Your task to perform on an android device: choose inbox layout in the gmail app Image 0: 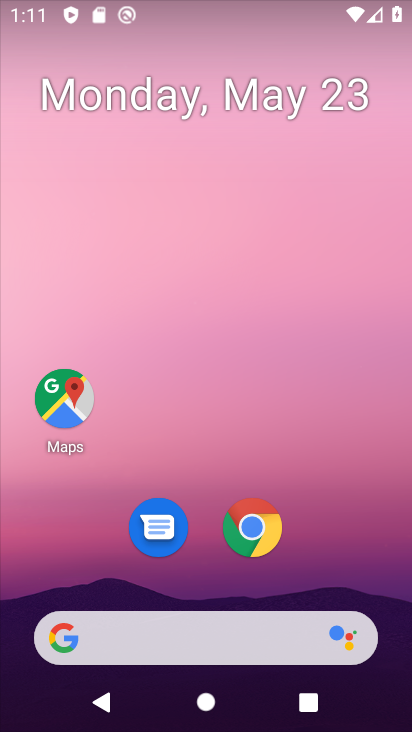
Step 0: drag from (202, 216) to (221, 79)
Your task to perform on an android device: choose inbox layout in the gmail app Image 1: 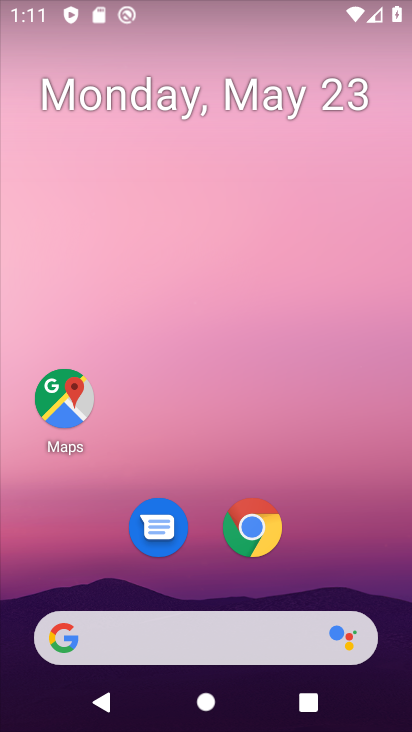
Step 1: drag from (184, 561) to (202, 178)
Your task to perform on an android device: choose inbox layout in the gmail app Image 2: 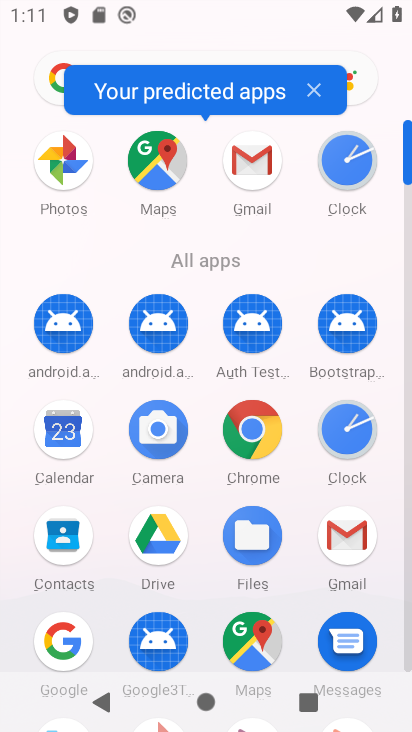
Step 2: click (235, 159)
Your task to perform on an android device: choose inbox layout in the gmail app Image 3: 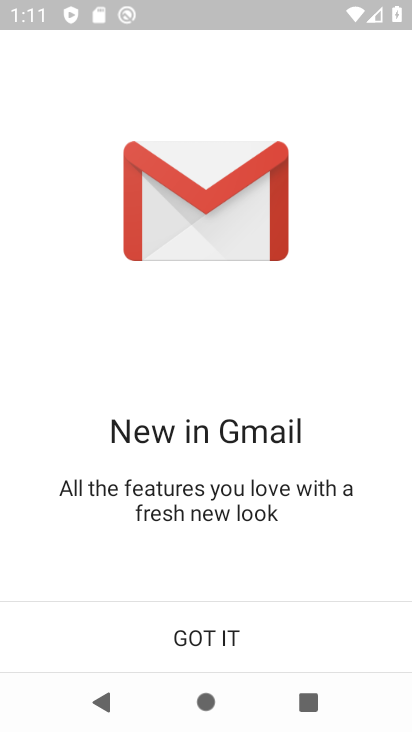
Step 3: click (183, 639)
Your task to perform on an android device: choose inbox layout in the gmail app Image 4: 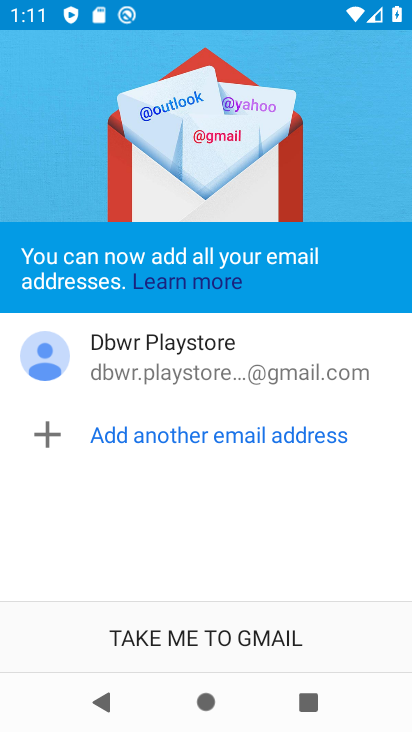
Step 4: click (199, 636)
Your task to perform on an android device: choose inbox layout in the gmail app Image 5: 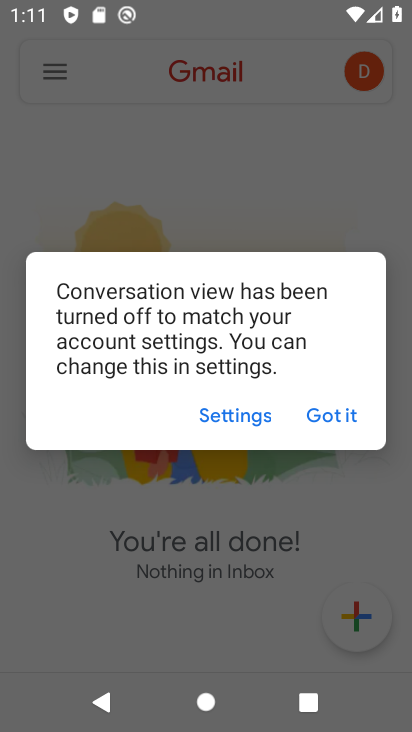
Step 5: click (313, 425)
Your task to perform on an android device: choose inbox layout in the gmail app Image 6: 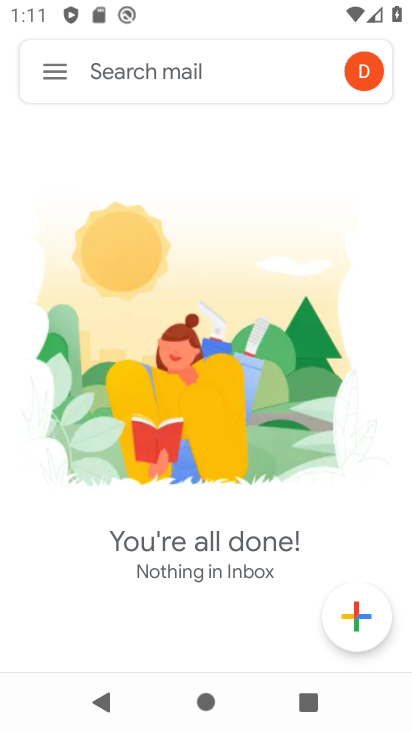
Step 6: click (60, 74)
Your task to perform on an android device: choose inbox layout in the gmail app Image 7: 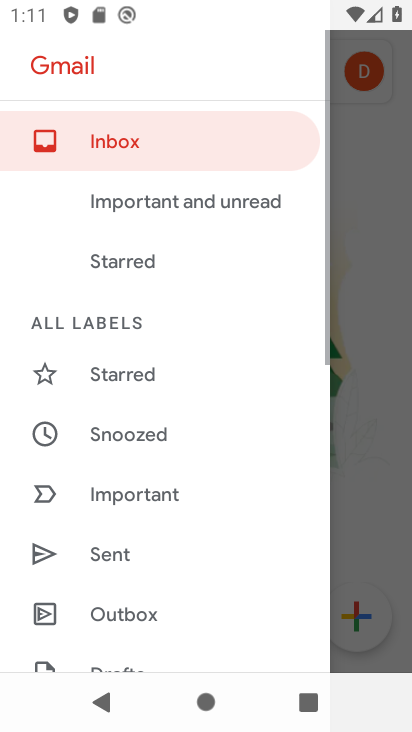
Step 7: drag from (143, 604) to (194, 167)
Your task to perform on an android device: choose inbox layout in the gmail app Image 8: 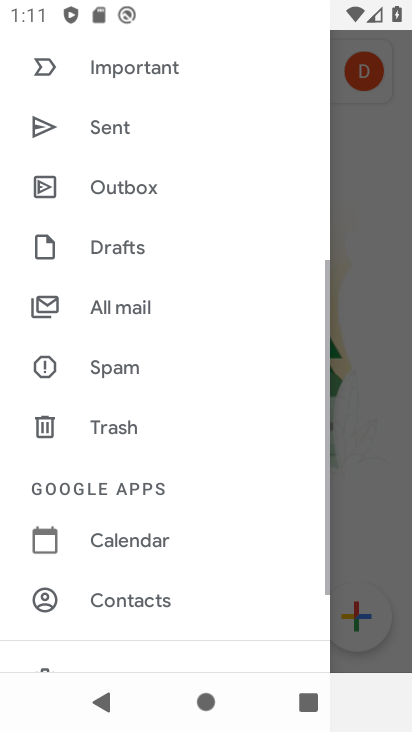
Step 8: drag from (151, 604) to (204, 128)
Your task to perform on an android device: choose inbox layout in the gmail app Image 9: 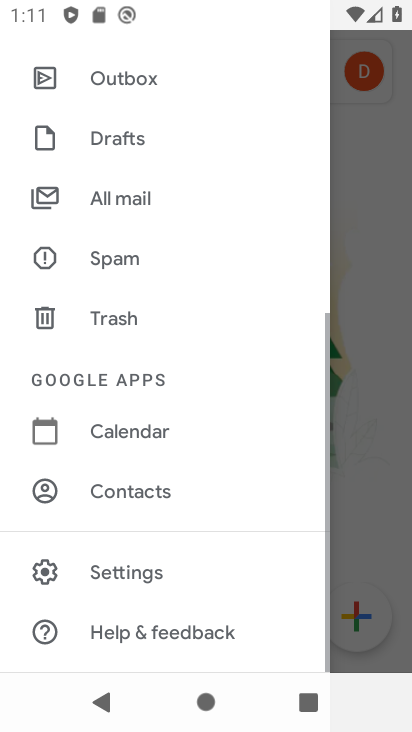
Step 9: click (165, 583)
Your task to perform on an android device: choose inbox layout in the gmail app Image 10: 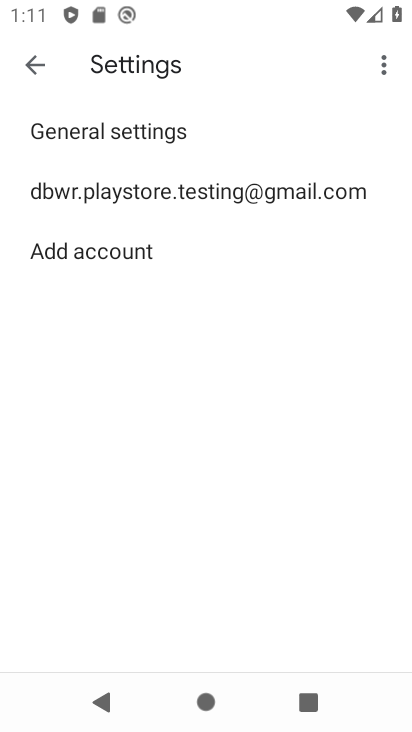
Step 10: click (167, 196)
Your task to perform on an android device: choose inbox layout in the gmail app Image 11: 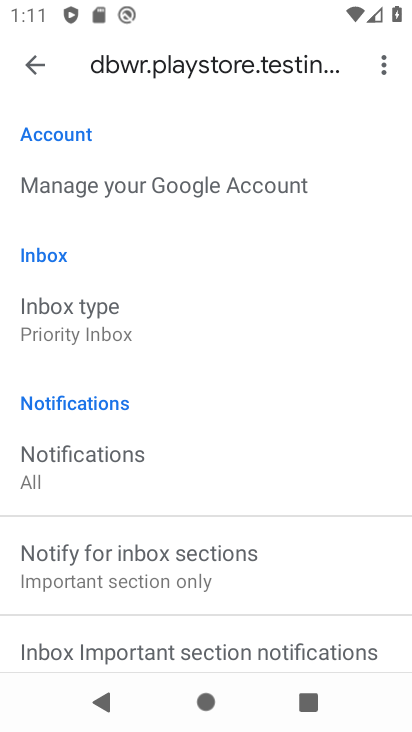
Step 11: click (111, 325)
Your task to perform on an android device: choose inbox layout in the gmail app Image 12: 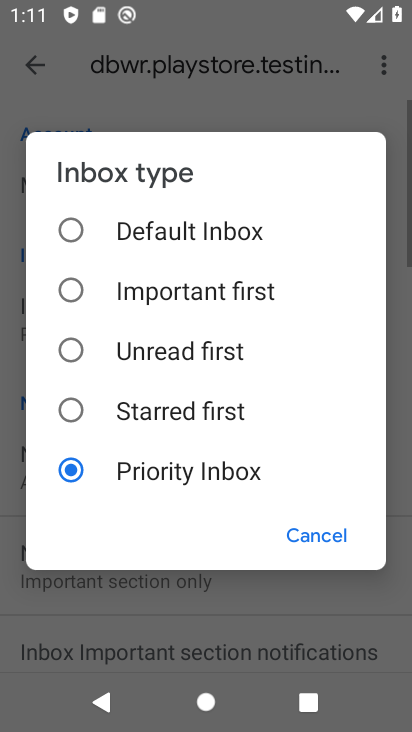
Step 12: click (178, 235)
Your task to perform on an android device: choose inbox layout in the gmail app Image 13: 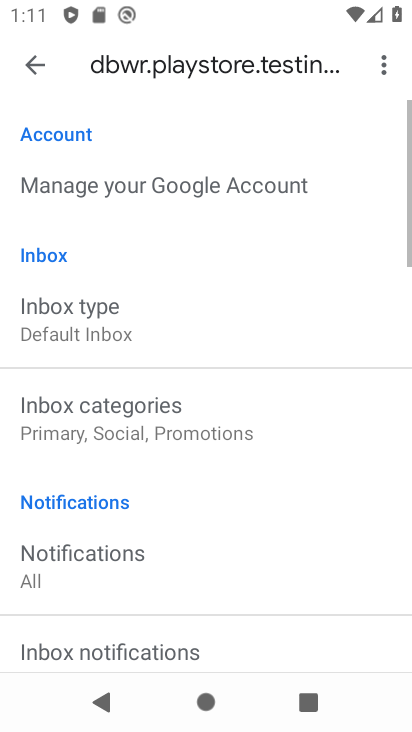
Step 13: task complete